Your task to perform on an android device: Is it going to rain this weekend? Image 0: 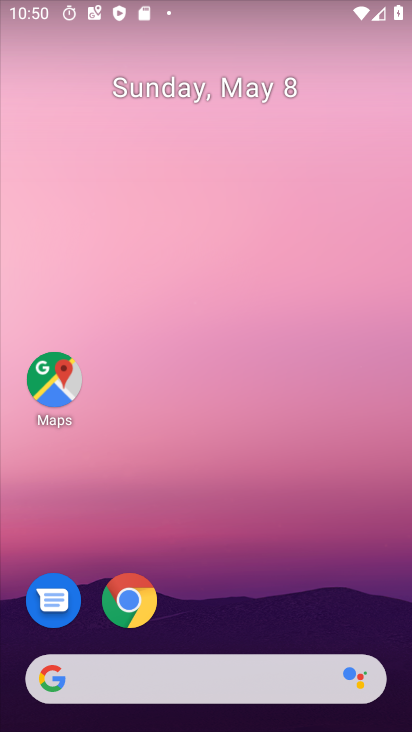
Step 0: click (230, 685)
Your task to perform on an android device: Is it going to rain this weekend? Image 1: 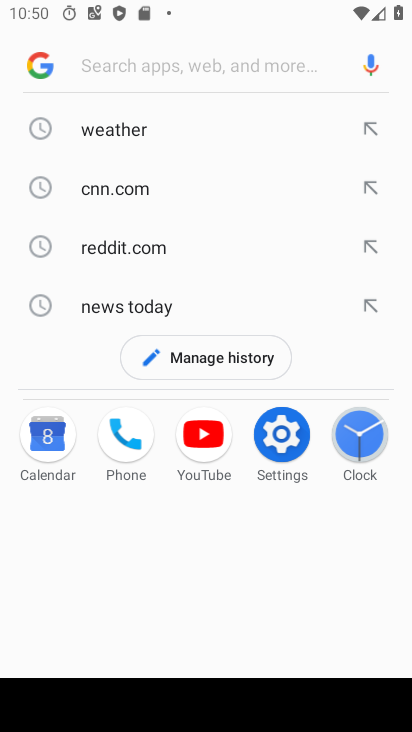
Step 1: click (199, 123)
Your task to perform on an android device: Is it going to rain this weekend? Image 2: 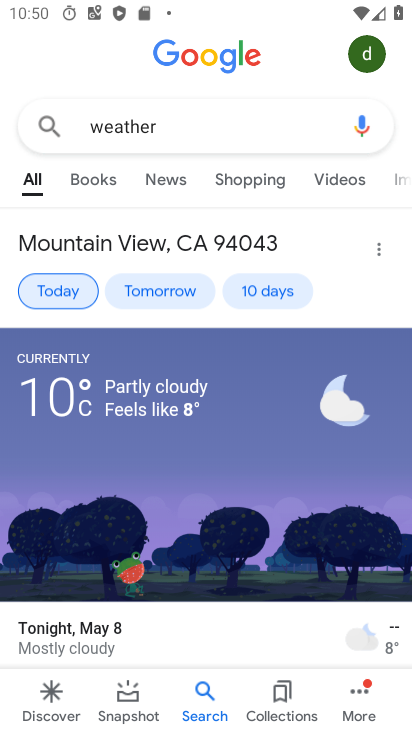
Step 2: task complete